Your task to perform on an android device: toggle javascript in the chrome app Image 0: 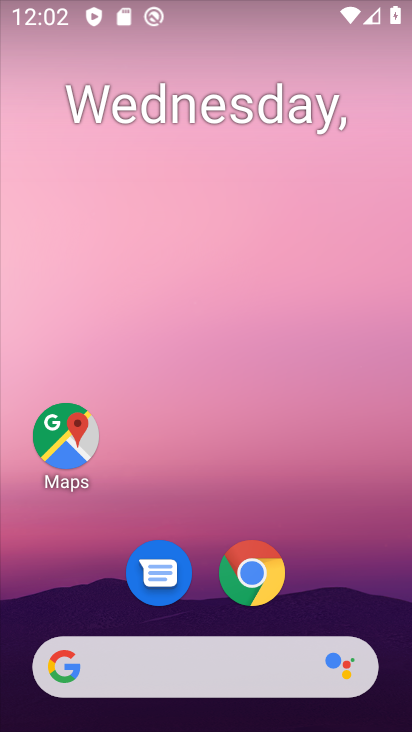
Step 0: drag from (389, 644) to (144, 65)
Your task to perform on an android device: toggle javascript in the chrome app Image 1: 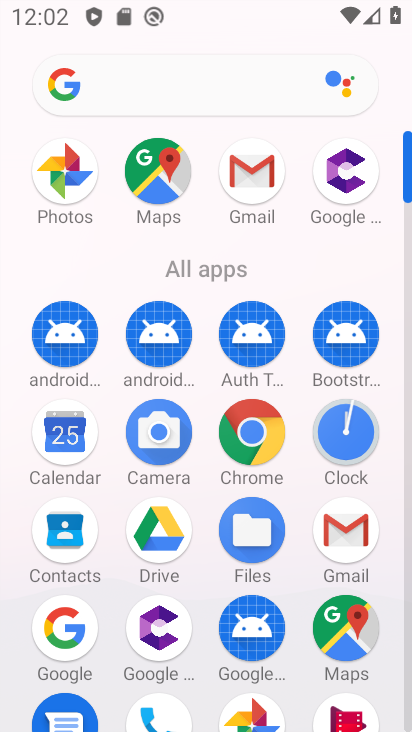
Step 1: click (261, 434)
Your task to perform on an android device: toggle javascript in the chrome app Image 2: 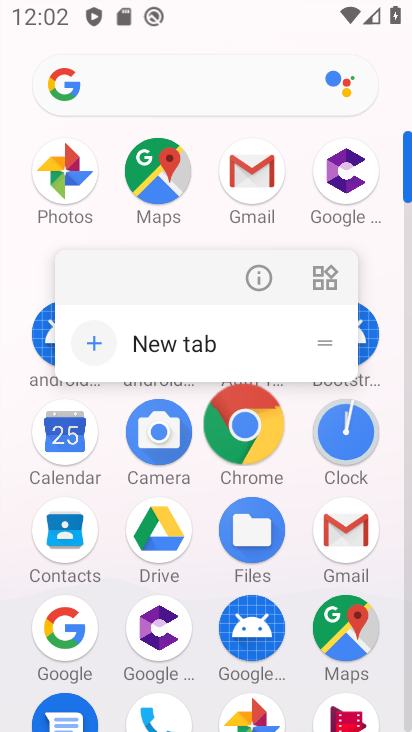
Step 2: click (253, 425)
Your task to perform on an android device: toggle javascript in the chrome app Image 3: 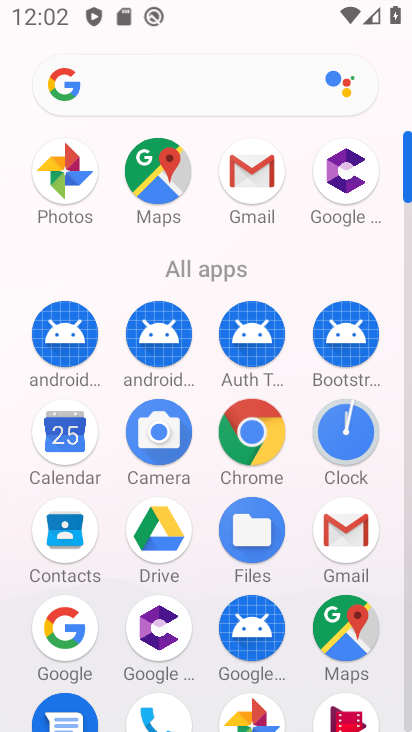
Step 3: click (254, 423)
Your task to perform on an android device: toggle javascript in the chrome app Image 4: 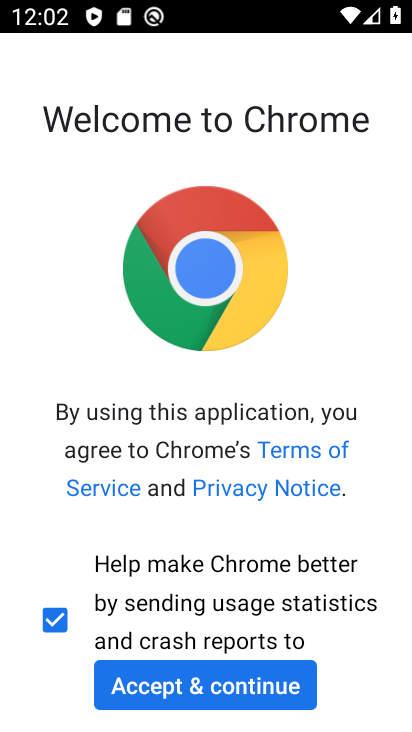
Step 4: click (221, 681)
Your task to perform on an android device: toggle javascript in the chrome app Image 5: 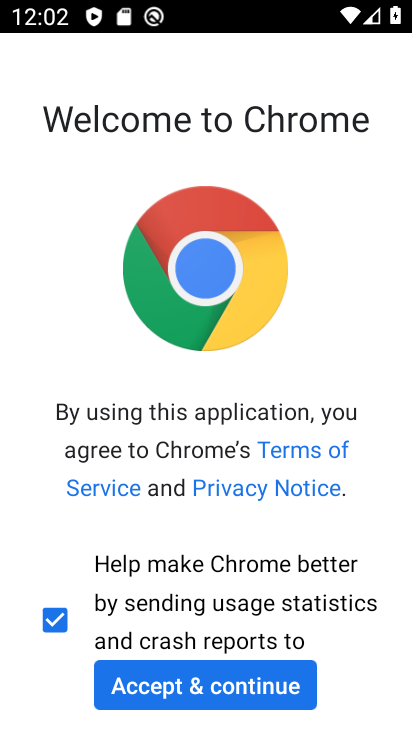
Step 5: click (221, 681)
Your task to perform on an android device: toggle javascript in the chrome app Image 6: 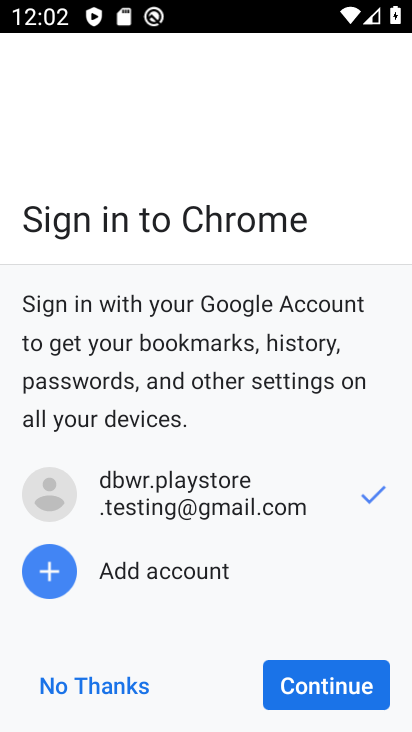
Step 6: click (226, 687)
Your task to perform on an android device: toggle javascript in the chrome app Image 7: 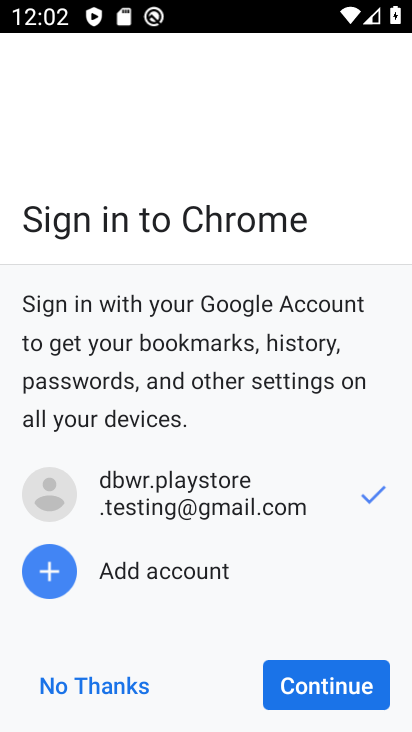
Step 7: click (296, 670)
Your task to perform on an android device: toggle javascript in the chrome app Image 8: 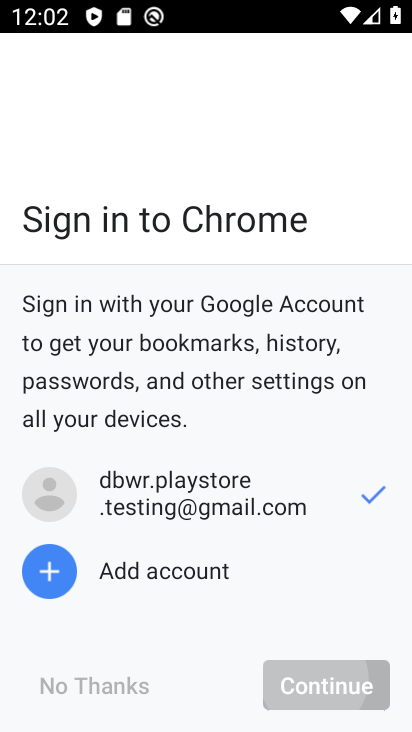
Step 8: click (299, 686)
Your task to perform on an android device: toggle javascript in the chrome app Image 9: 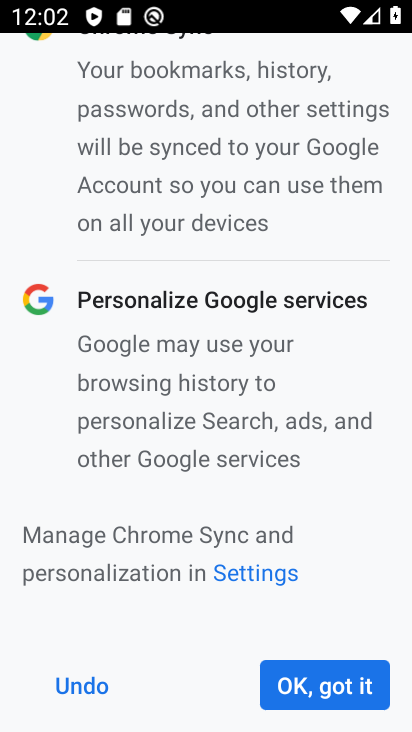
Step 9: click (299, 686)
Your task to perform on an android device: toggle javascript in the chrome app Image 10: 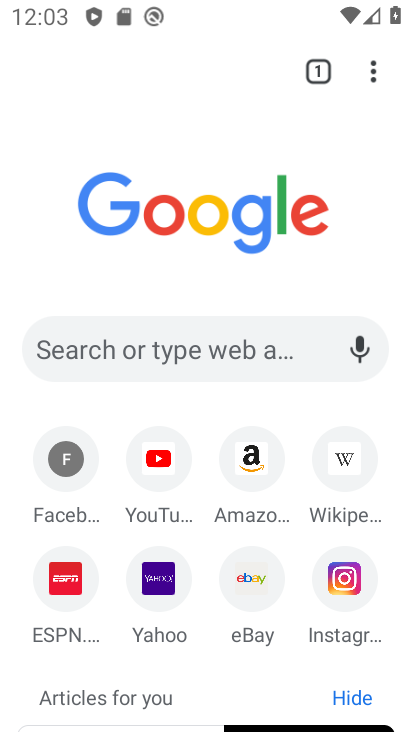
Step 10: drag from (371, 76) to (124, 599)
Your task to perform on an android device: toggle javascript in the chrome app Image 11: 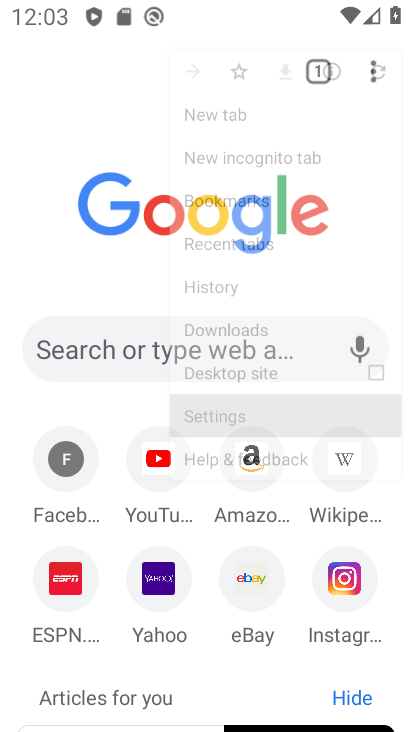
Step 11: click (138, 614)
Your task to perform on an android device: toggle javascript in the chrome app Image 12: 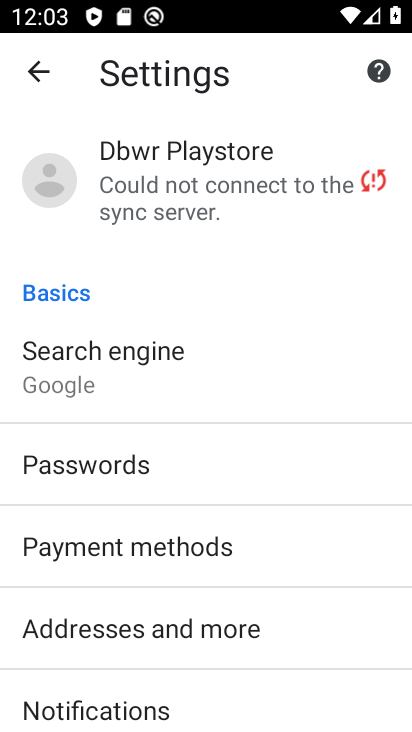
Step 12: drag from (208, 492) to (195, 177)
Your task to perform on an android device: toggle javascript in the chrome app Image 13: 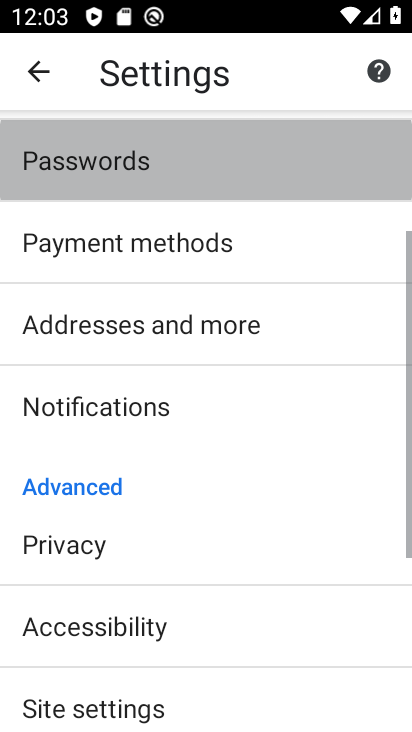
Step 13: drag from (225, 464) to (239, 103)
Your task to perform on an android device: toggle javascript in the chrome app Image 14: 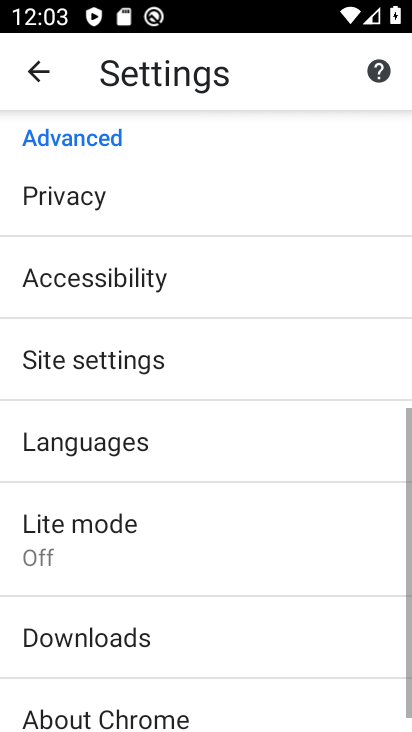
Step 14: drag from (203, 185) to (214, 117)
Your task to perform on an android device: toggle javascript in the chrome app Image 15: 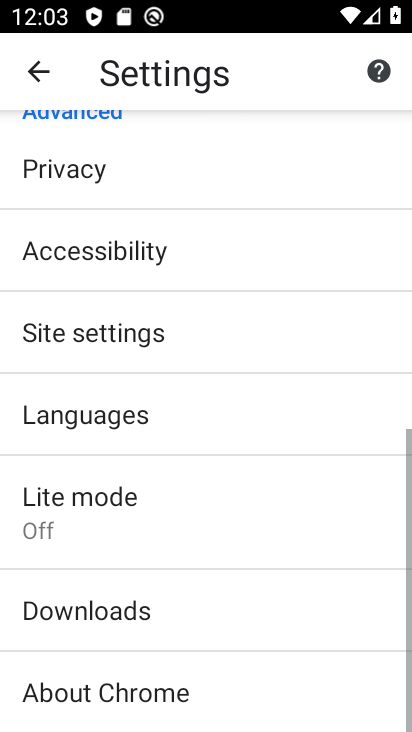
Step 15: drag from (151, 561) to (239, 105)
Your task to perform on an android device: toggle javascript in the chrome app Image 16: 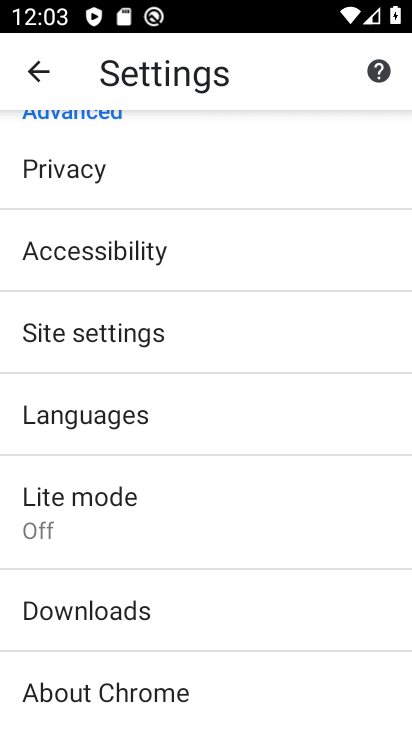
Step 16: click (70, 333)
Your task to perform on an android device: toggle javascript in the chrome app Image 17: 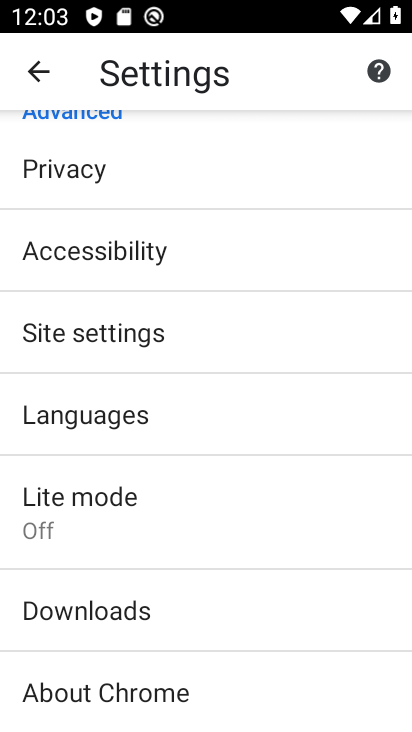
Step 17: click (70, 333)
Your task to perform on an android device: toggle javascript in the chrome app Image 18: 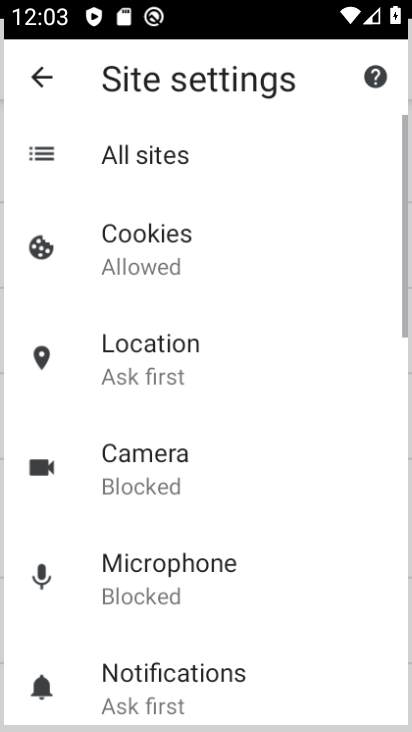
Step 18: click (70, 333)
Your task to perform on an android device: toggle javascript in the chrome app Image 19: 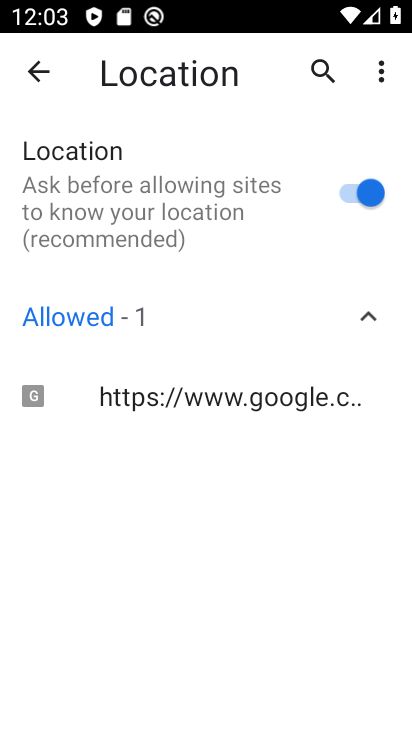
Step 19: click (36, 69)
Your task to perform on an android device: toggle javascript in the chrome app Image 20: 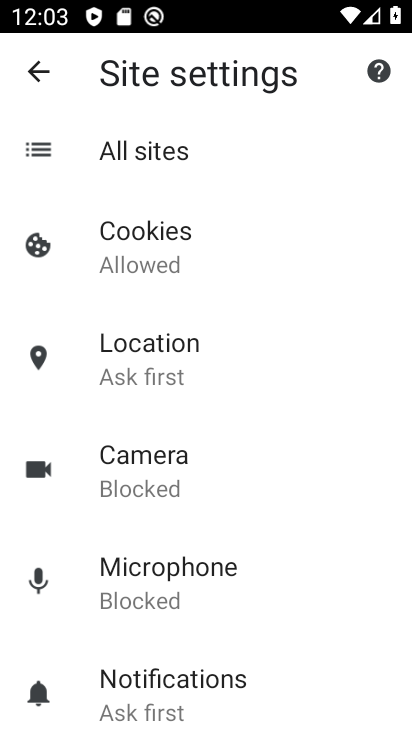
Step 20: drag from (156, 509) to (141, 138)
Your task to perform on an android device: toggle javascript in the chrome app Image 21: 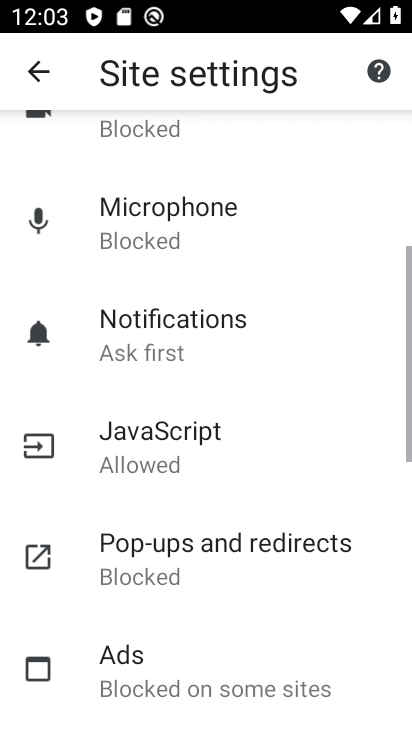
Step 21: drag from (193, 444) to (190, 137)
Your task to perform on an android device: toggle javascript in the chrome app Image 22: 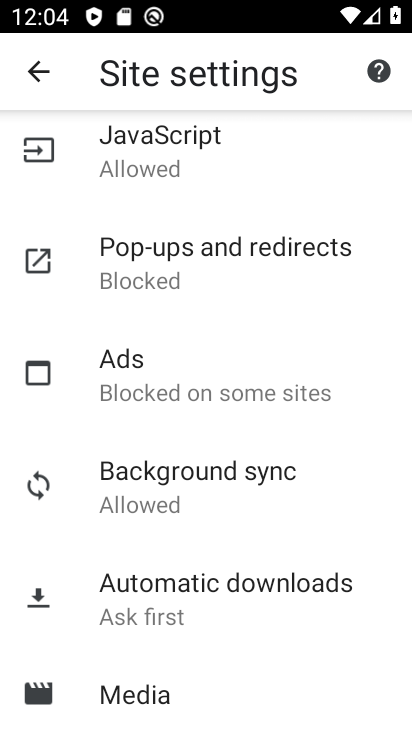
Step 22: click (138, 149)
Your task to perform on an android device: toggle javascript in the chrome app Image 23: 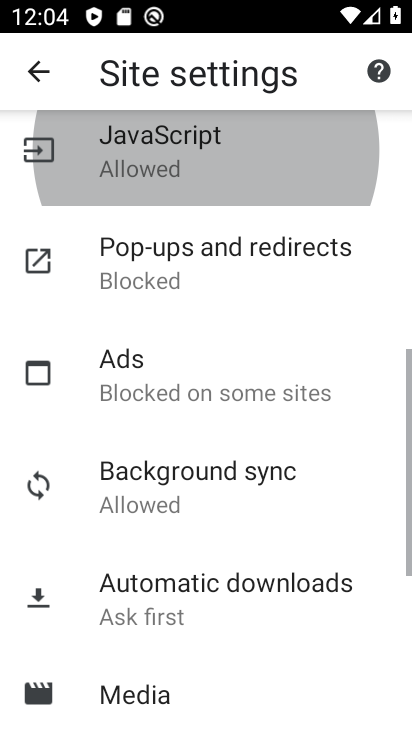
Step 23: click (145, 145)
Your task to perform on an android device: toggle javascript in the chrome app Image 24: 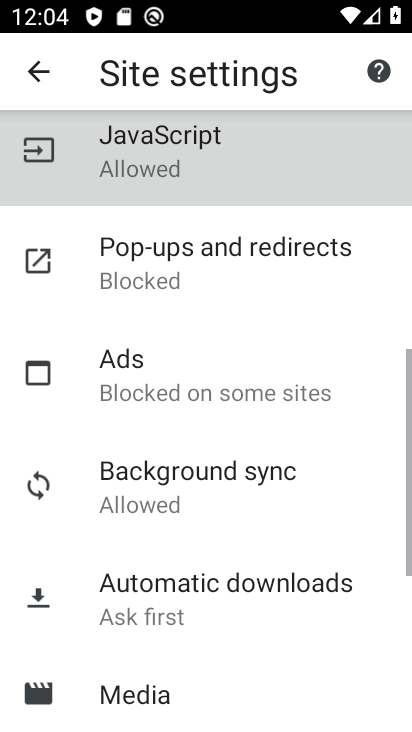
Step 24: click (145, 147)
Your task to perform on an android device: toggle javascript in the chrome app Image 25: 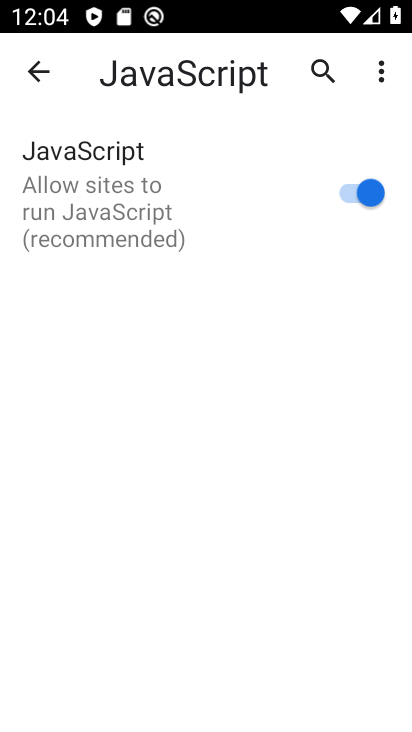
Step 25: click (368, 184)
Your task to perform on an android device: toggle javascript in the chrome app Image 26: 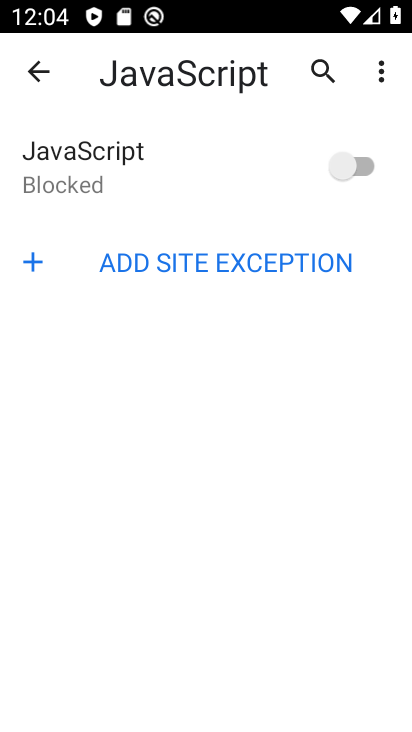
Step 26: task complete